Your task to perform on an android device: open a bookmark in the chrome app Image 0: 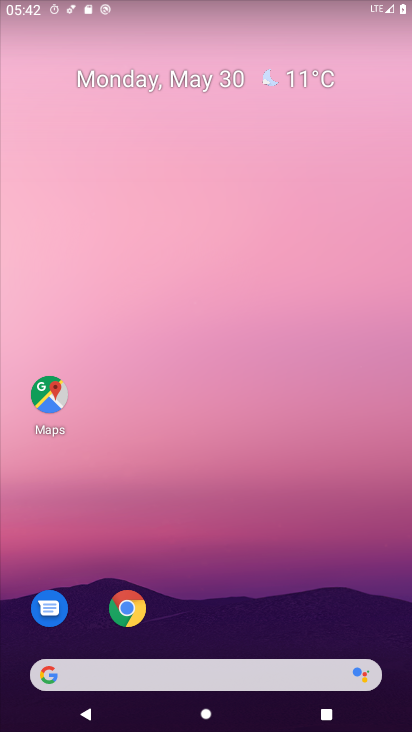
Step 0: click (128, 607)
Your task to perform on an android device: open a bookmark in the chrome app Image 1: 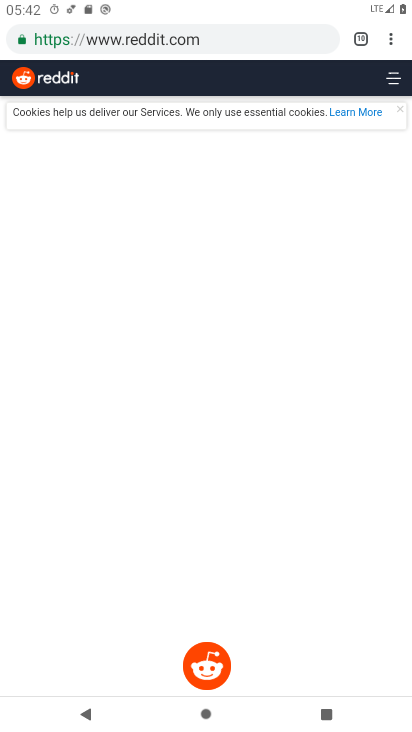
Step 1: click (395, 37)
Your task to perform on an android device: open a bookmark in the chrome app Image 2: 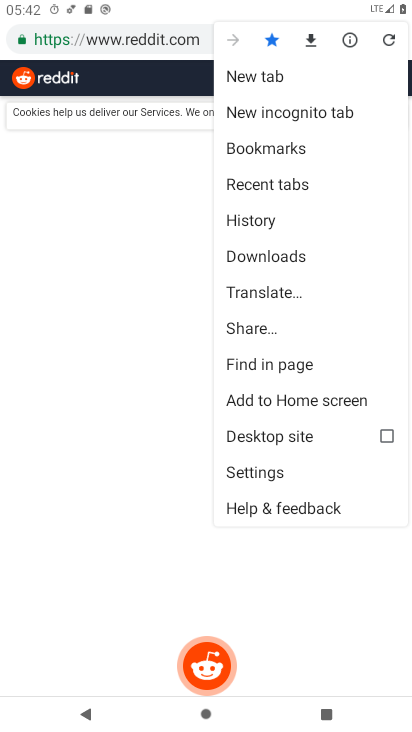
Step 2: click (308, 152)
Your task to perform on an android device: open a bookmark in the chrome app Image 3: 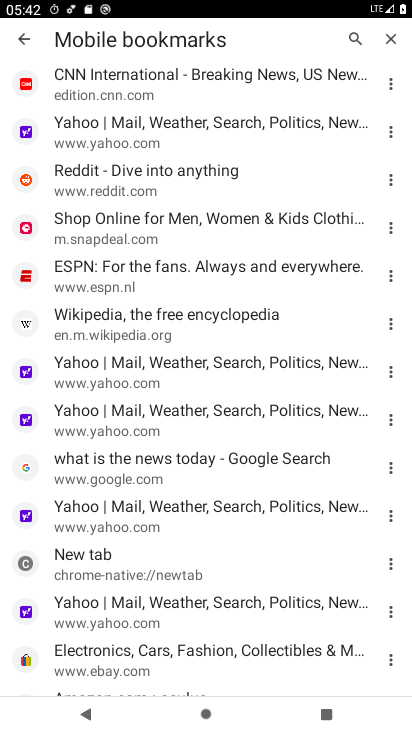
Step 3: click (206, 181)
Your task to perform on an android device: open a bookmark in the chrome app Image 4: 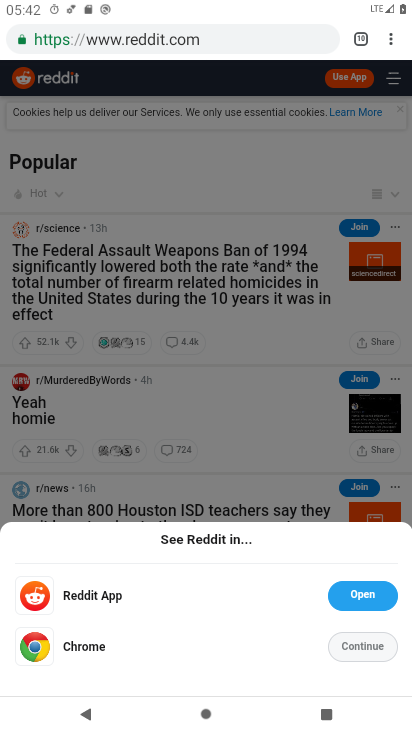
Step 4: task complete